Your task to perform on an android device: Go to battery settings Image 0: 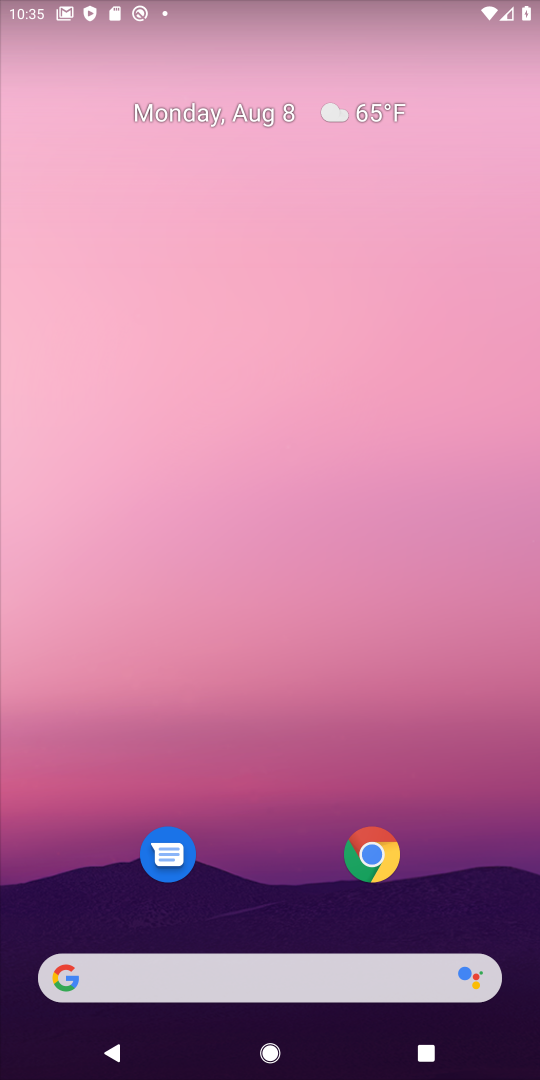
Step 0: drag from (175, 604) to (19, 414)
Your task to perform on an android device: Go to battery settings Image 1: 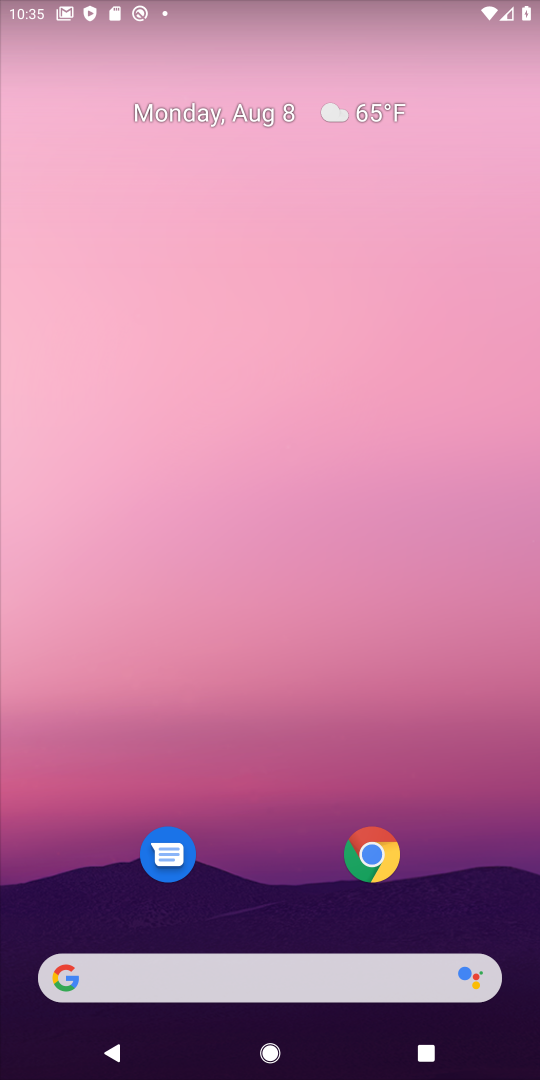
Step 1: drag from (192, 360) to (246, 837)
Your task to perform on an android device: Go to battery settings Image 2: 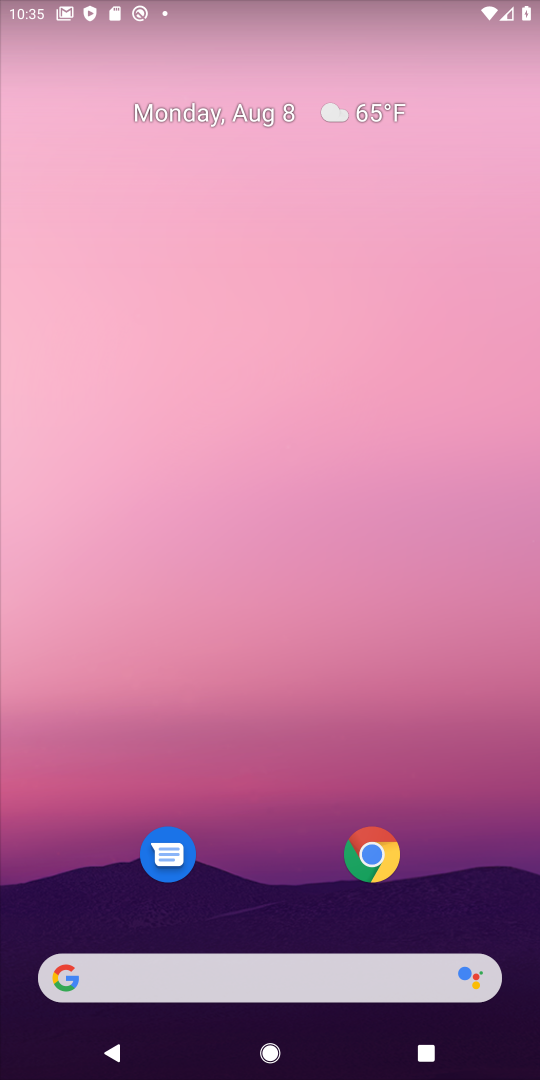
Step 2: drag from (217, 52) to (285, 978)
Your task to perform on an android device: Go to battery settings Image 3: 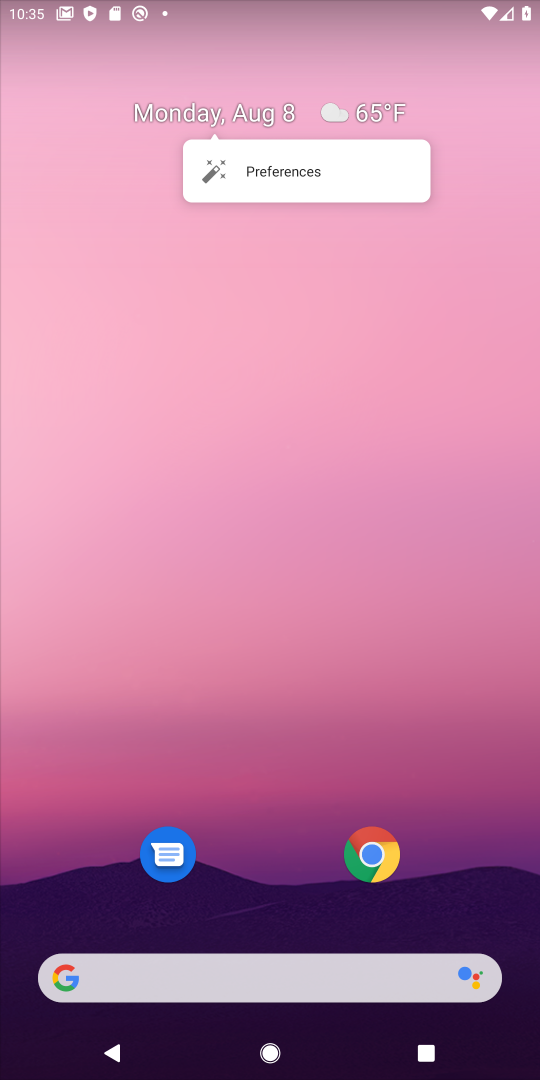
Step 3: drag from (299, 29) to (286, 916)
Your task to perform on an android device: Go to battery settings Image 4: 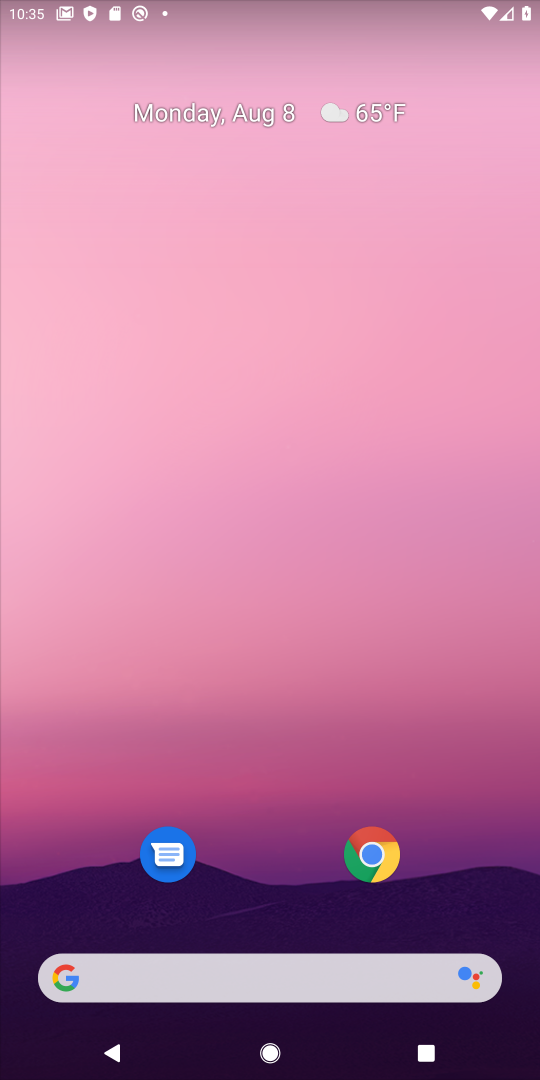
Step 4: click (336, 890)
Your task to perform on an android device: Go to battery settings Image 5: 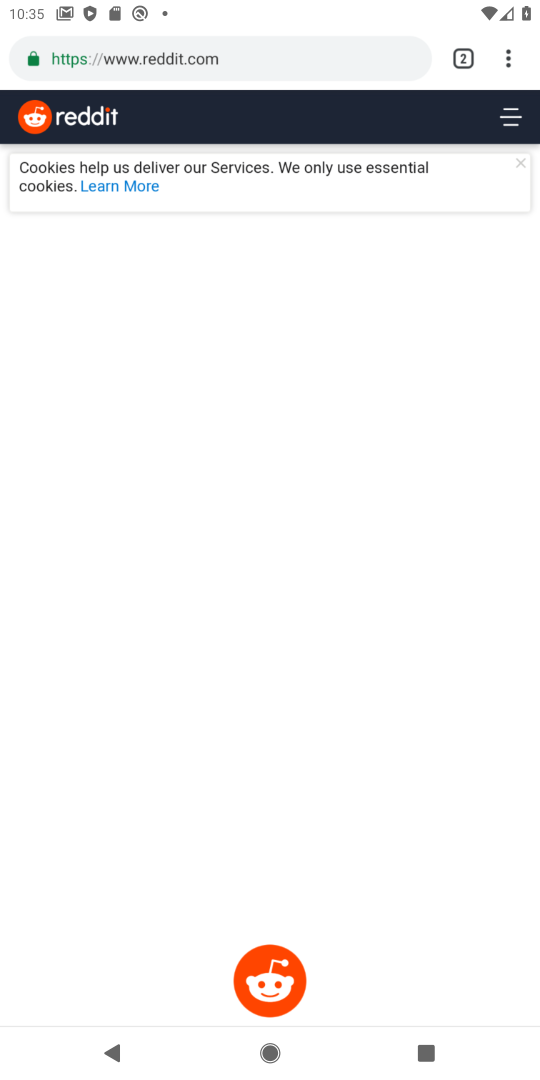
Step 5: drag from (179, 11) to (226, 651)
Your task to perform on an android device: Go to battery settings Image 6: 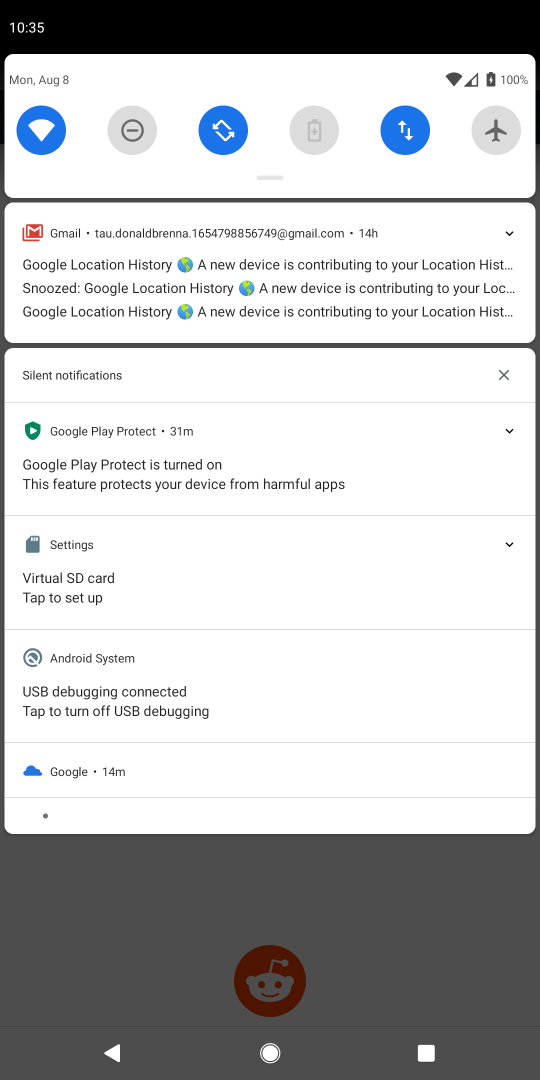
Step 6: click (393, 816)
Your task to perform on an android device: Go to battery settings Image 7: 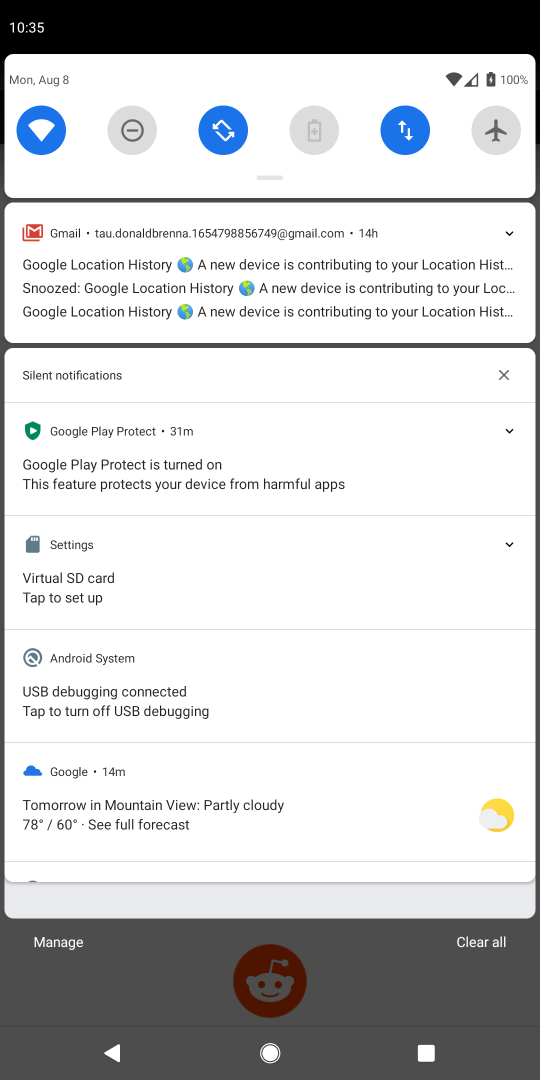
Step 7: click (311, 135)
Your task to perform on an android device: Go to battery settings Image 8: 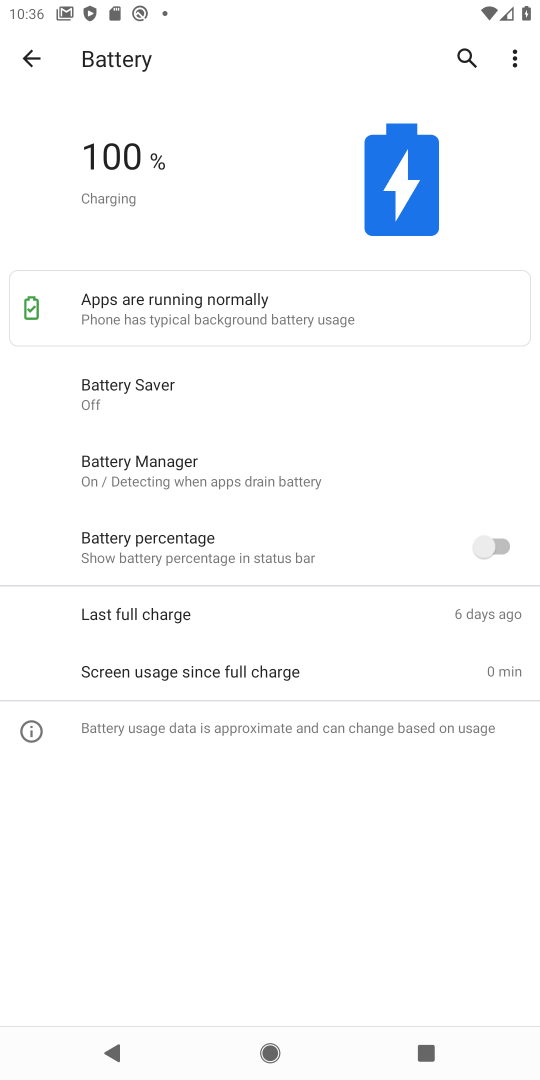
Step 8: task complete